Your task to perform on an android device: Search for seafood restaurants on Google Maps Image 0: 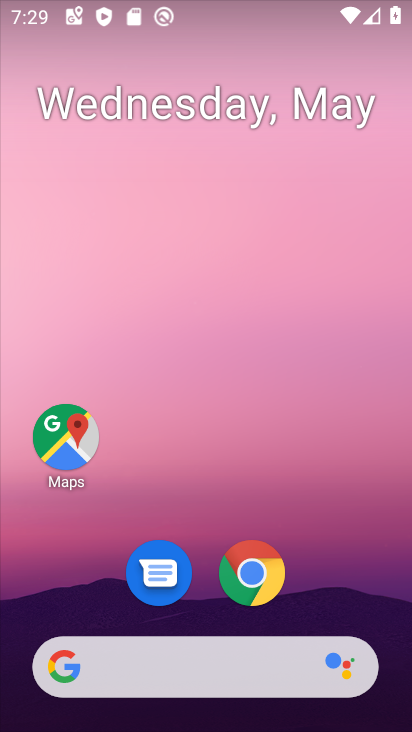
Step 0: drag from (323, 597) to (322, 114)
Your task to perform on an android device: Search for seafood restaurants on Google Maps Image 1: 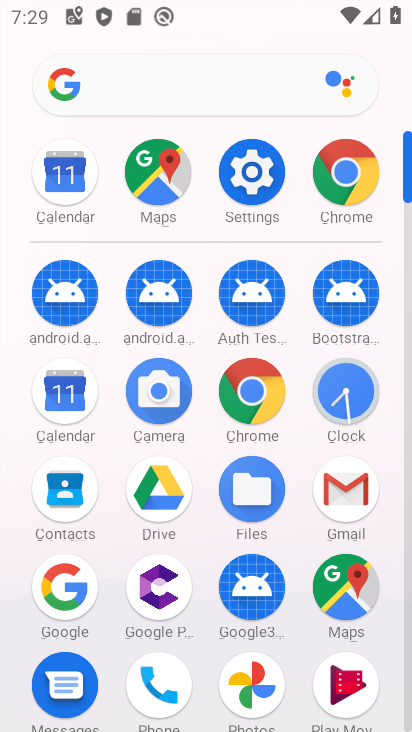
Step 1: click (166, 200)
Your task to perform on an android device: Search for seafood restaurants on Google Maps Image 2: 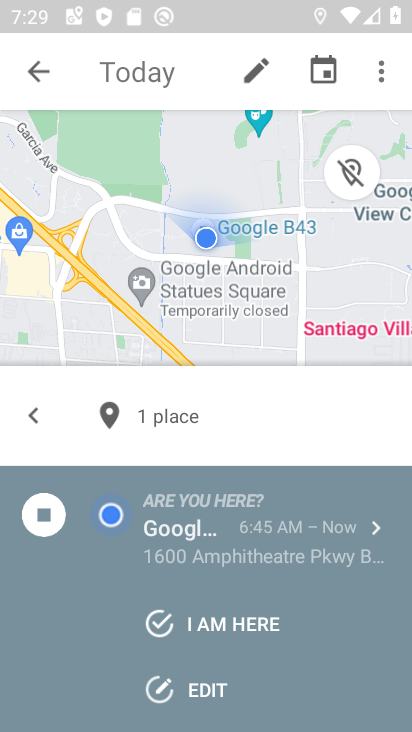
Step 2: click (34, 74)
Your task to perform on an android device: Search for seafood restaurants on Google Maps Image 3: 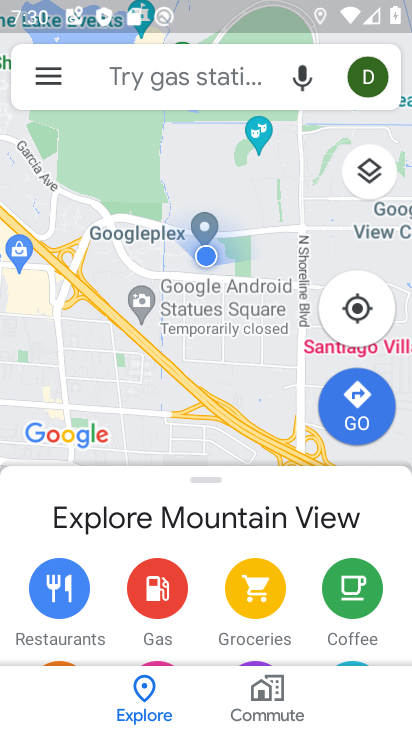
Step 3: click (158, 78)
Your task to perform on an android device: Search for seafood restaurants on Google Maps Image 4: 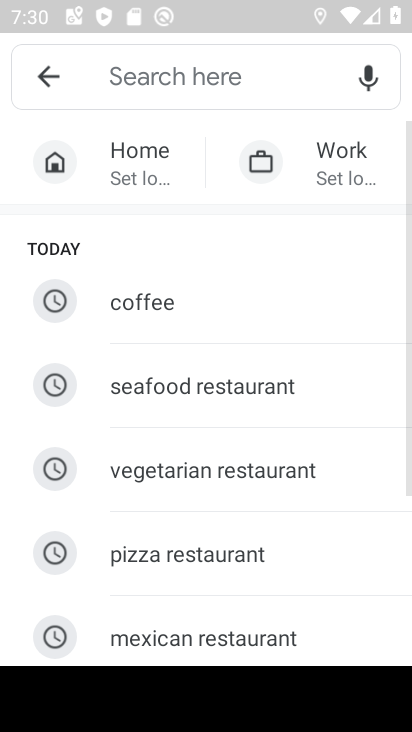
Step 4: click (226, 374)
Your task to perform on an android device: Search for seafood restaurants on Google Maps Image 5: 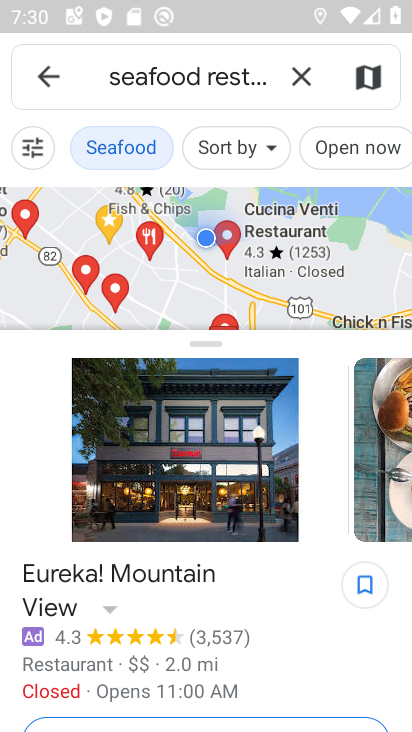
Step 5: task complete